Your task to perform on an android device: Open battery settings Image 0: 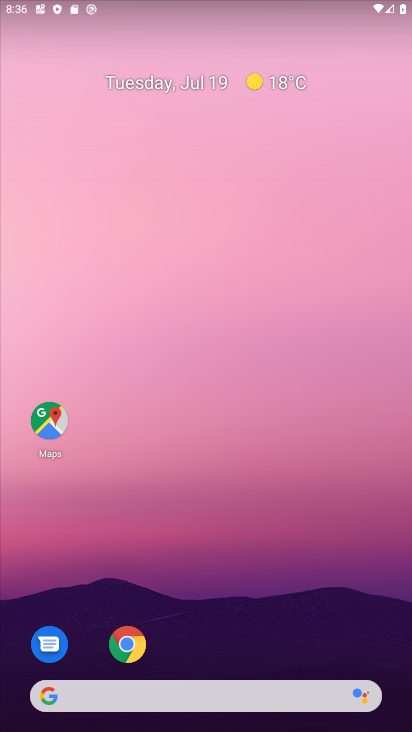
Step 0: drag from (260, 728) to (221, 234)
Your task to perform on an android device: Open battery settings Image 1: 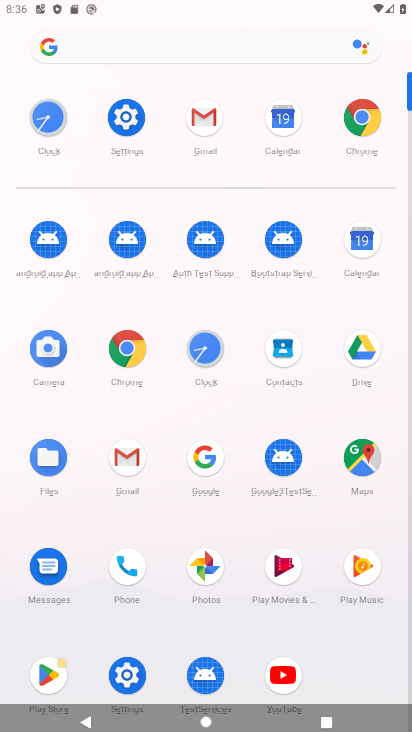
Step 1: click (132, 113)
Your task to perform on an android device: Open battery settings Image 2: 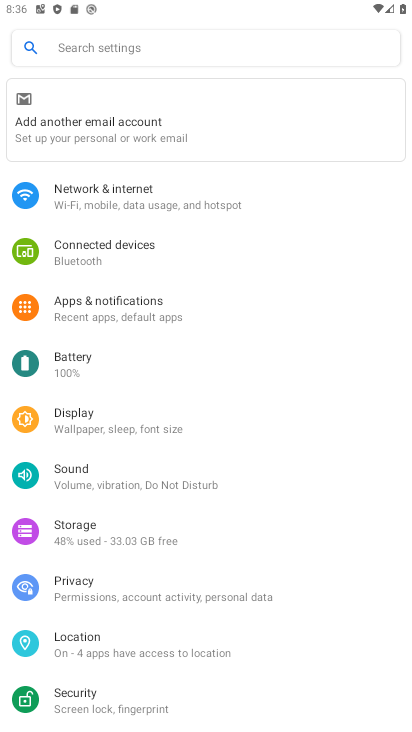
Step 2: click (67, 366)
Your task to perform on an android device: Open battery settings Image 3: 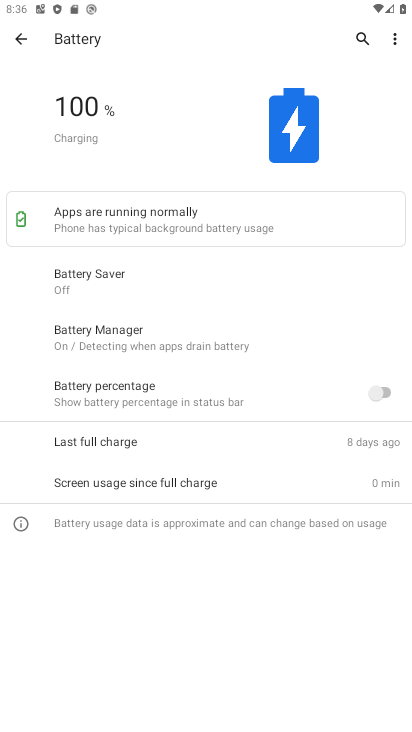
Step 3: task complete